Your task to perform on an android device: toggle translation in the chrome app Image 0: 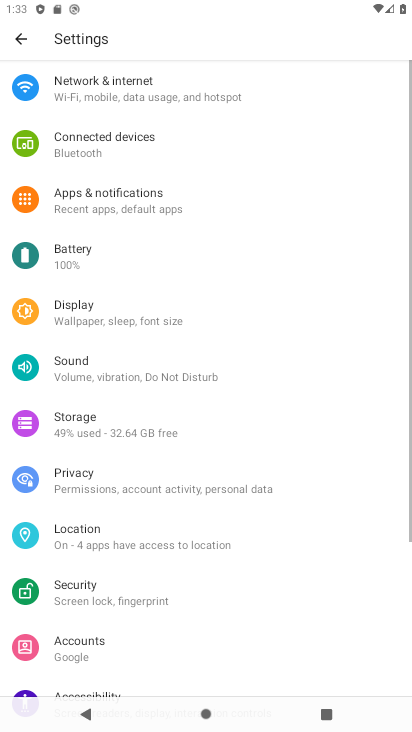
Step 0: press home button
Your task to perform on an android device: toggle translation in the chrome app Image 1: 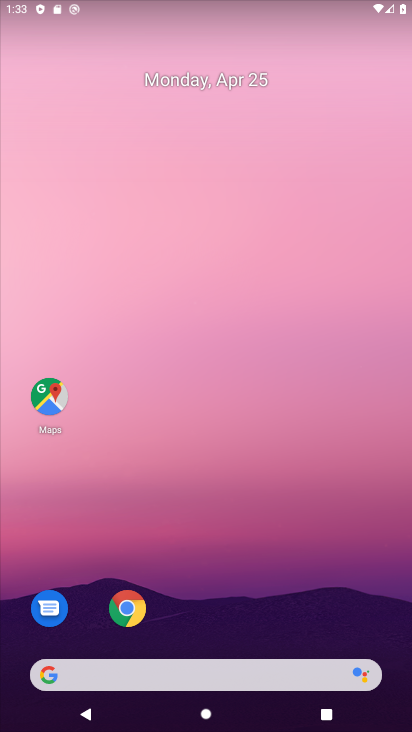
Step 1: drag from (375, 596) to (361, 119)
Your task to perform on an android device: toggle translation in the chrome app Image 2: 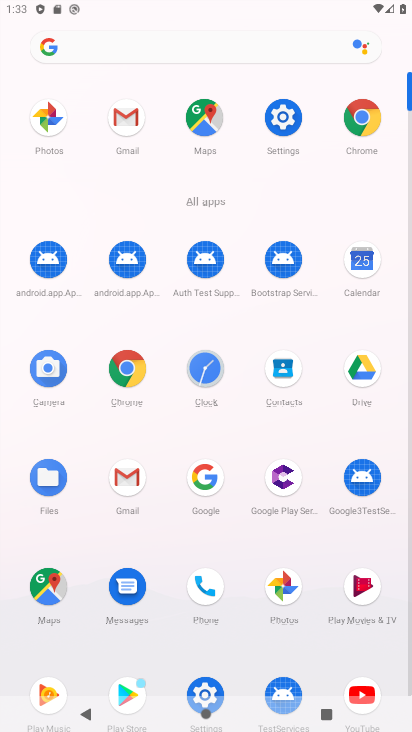
Step 2: click (123, 387)
Your task to perform on an android device: toggle translation in the chrome app Image 3: 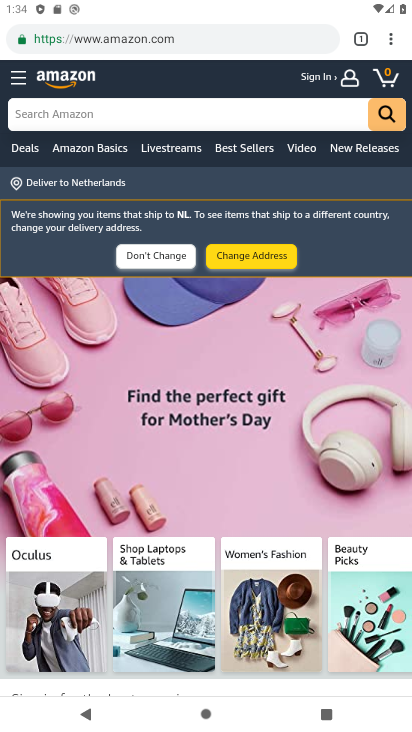
Step 3: click (393, 38)
Your task to perform on an android device: toggle translation in the chrome app Image 4: 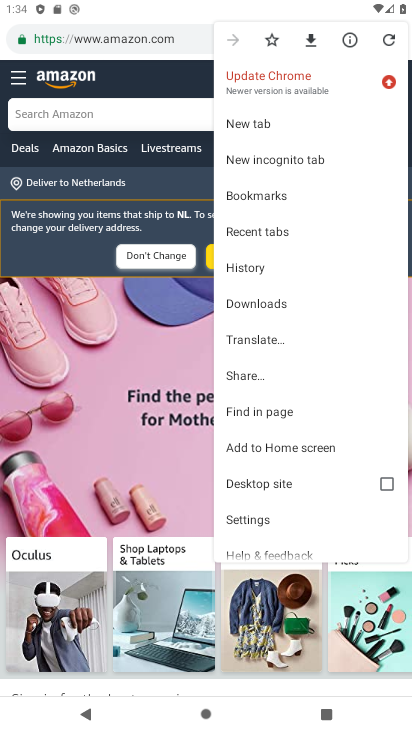
Step 4: click (271, 521)
Your task to perform on an android device: toggle translation in the chrome app Image 5: 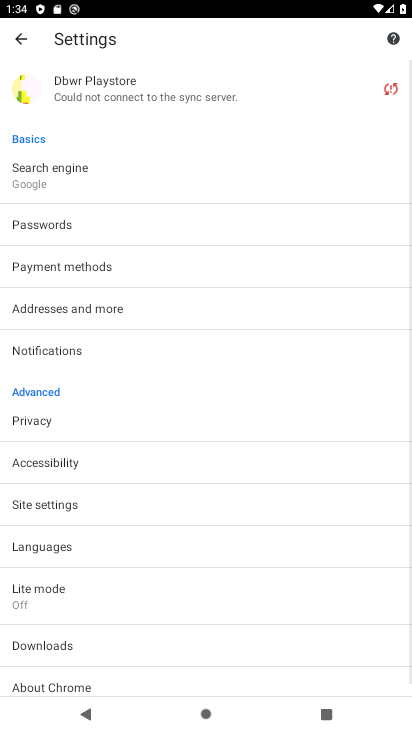
Step 5: drag from (274, 542) to (279, 410)
Your task to perform on an android device: toggle translation in the chrome app Image 6: 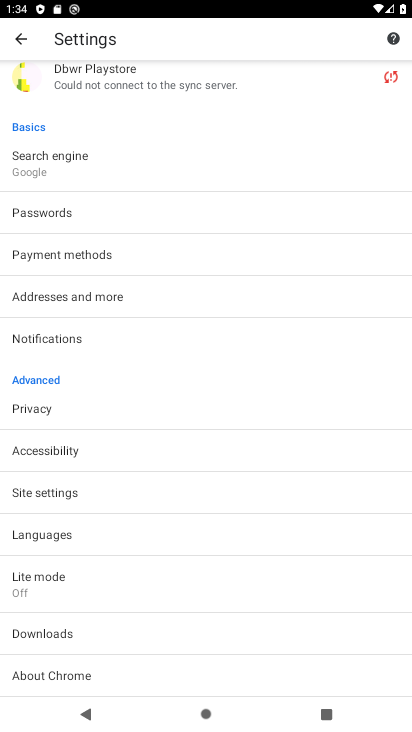
Step 6: drag from (255, 312) to (256, 472)
Your task to perform on an android device: toggle translation in the chrome app Image 7: 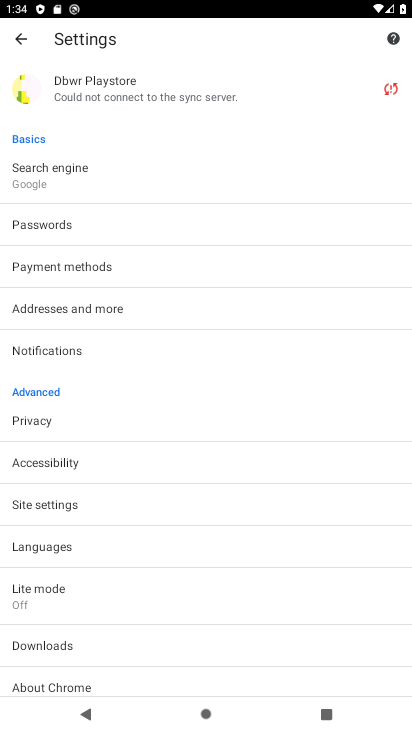
Step 7: click (173, 547)
Your task to perform on an android device: toggle translation in the chrome app Image 8: 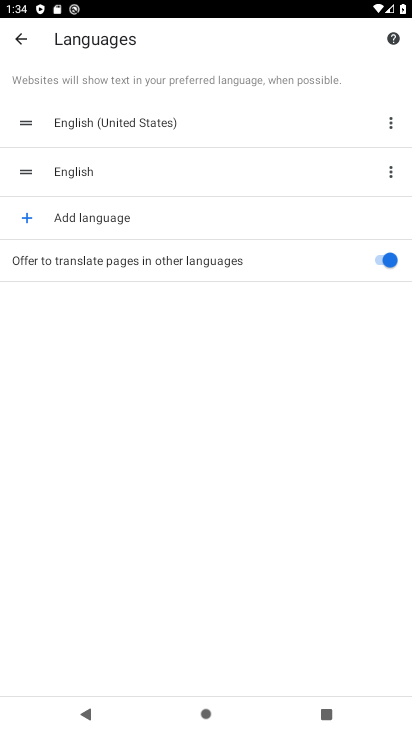
Step 8: click (380, 262)
Your task to perform on an android device: toggle translation in the chrome app Image 9: 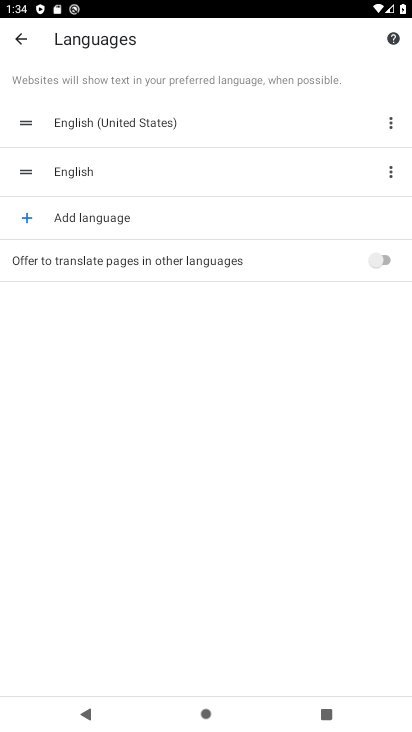
Step 9: task complete